Your task to perform on an android device: open app "Pluto TV - Live TV and Movies" (install if not already installed) and go to login screen Image 0: 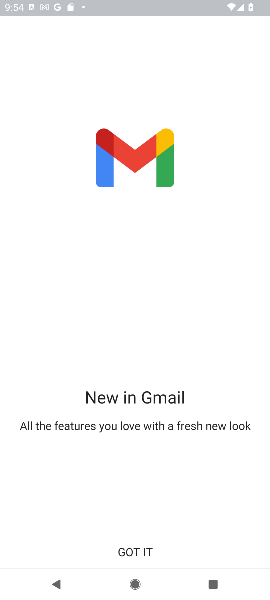
Step 0: press home button
Your task to perform on an android device: open app "Pluto TV - Live TV and Movies" (install if not already installed) and go to login screen Image 1: 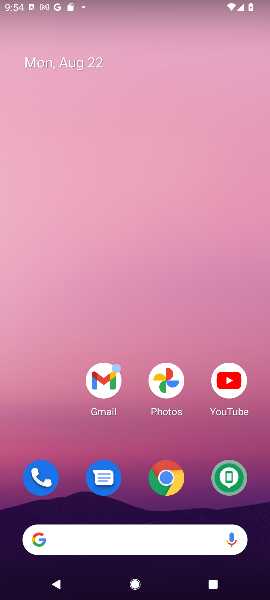
Step 1: drag from (139, 510) to (129, 73)
Your task to perform on an android device: open app "Pluto TV - Live TV and Movies" (install if not already installed) and go to login screen Image 2: 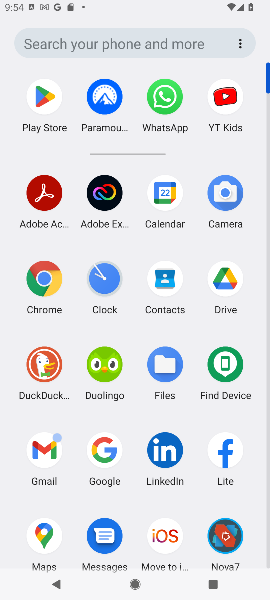
Step 2: click (54, 99)
Your task to perform on an android device: open app "Pluto TV - Live TV and Movies" (install if not already installed) and go to login screen Image 3: 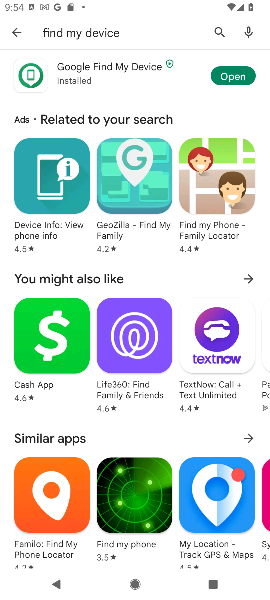
Step 3: click (218, 37)
Your task to perform on an android device: open app "Pluto TV - Live TV and Movies" (install if not already installed) and go to login screen Image 4: 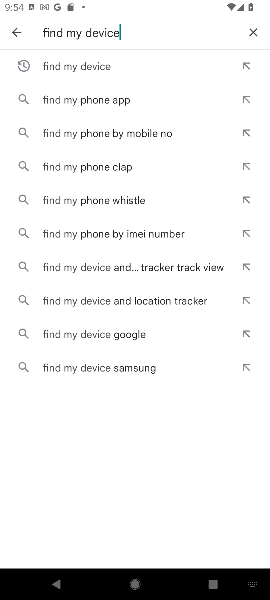
Step 4: click (258, 39)
Your task to perform on an android device: open app "Pluto TV - Live TV and Movies" (install if not already installed) and go to login screen Image 5: 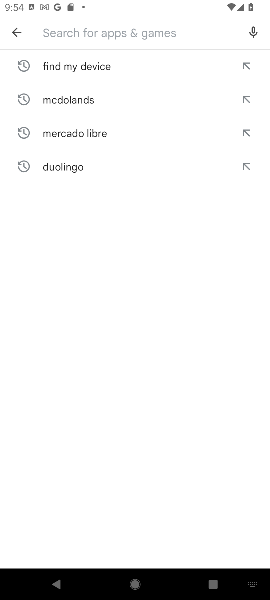
Step 5: type "pluto tv"
Your task to perform on an android device: open app "Pluto TV - Live TV and Movies" (install if not already installed) and go to login screen Image 6: 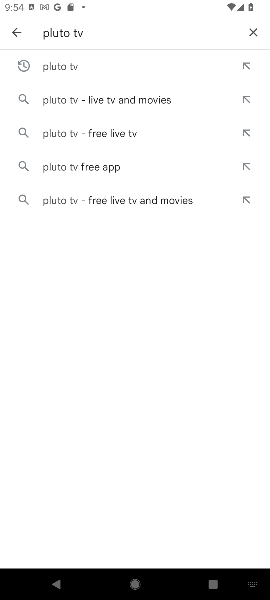
Step 6: click (65, 74)
Your task to perform on an android device: open app "Pluto TV - Live TV and Movies" (install if not already installed) and go to login screen Image 7: 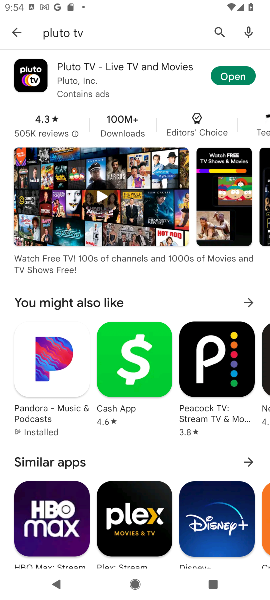
Step 7: click (221, 67)
Your task to perform on an android device: open app "Pluto TV - Live TV and Movies" (install if not already installed) and go to login screen Image 8: 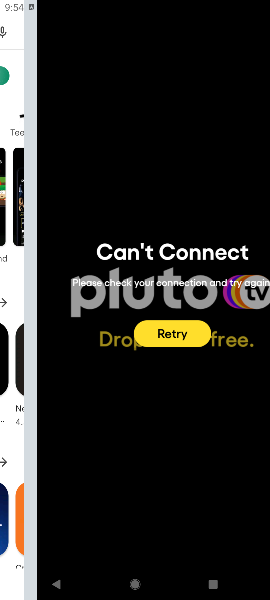
Step 8: task complete